Your task to perform on an android device: Open Amazon Image 0: 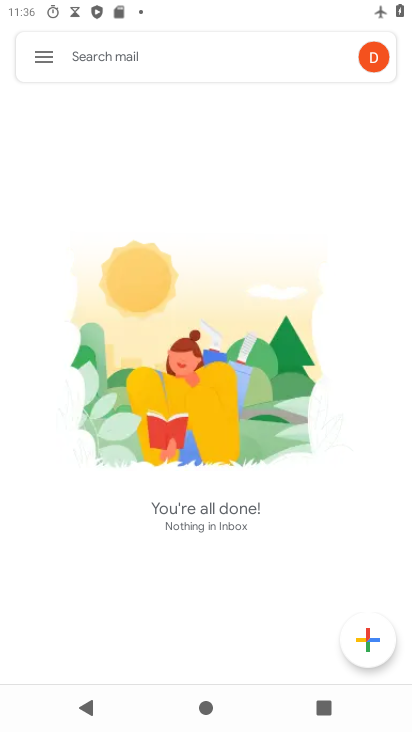
Step 0: press home button
Your task to perform on an android device: Open Amazon Image 1: 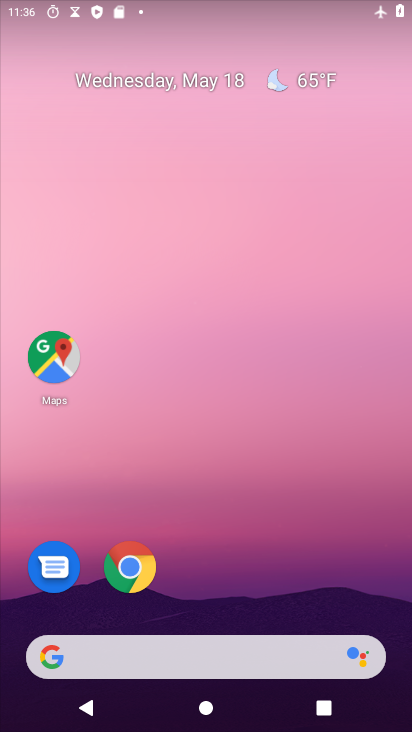
Step 1: drag from (250, 615) to (230, 174)
Your task to perform on an android device: Open Amazon Image 2: 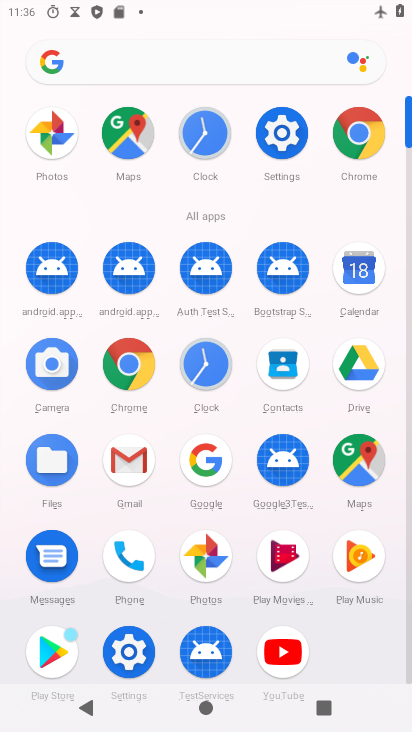
Step 2: click (346, 154)
Your task to perform on an android device: Open Amazon Image 3: 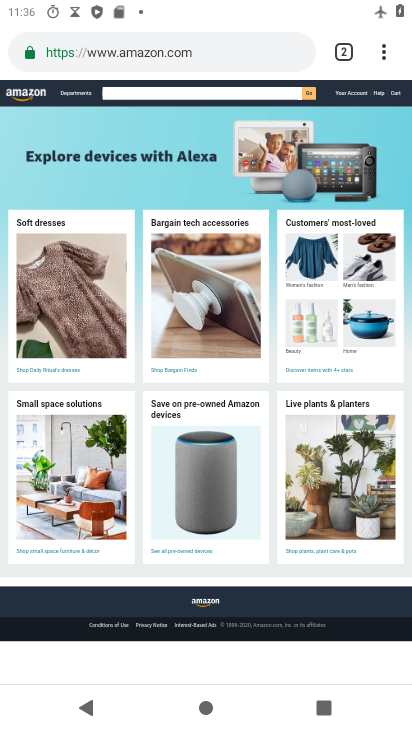
Step 3: task complete